Your task to perform on an android device: Open maps Image 0: 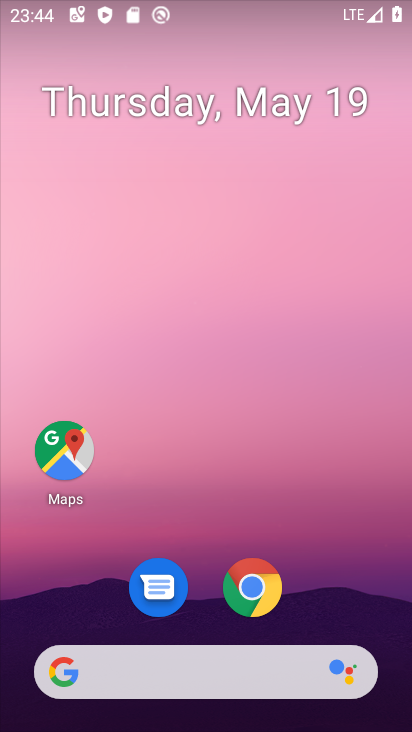
Step 0: drag from (217, 681) to (228, 191)
Your task to perform on an android device: Open maps Image 1: 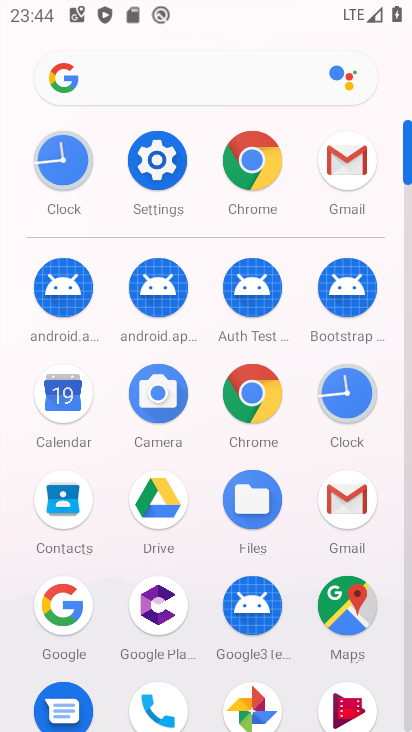
Step 1: click (348, 587)
Your task to perform on an android device: Open maps Image 2: 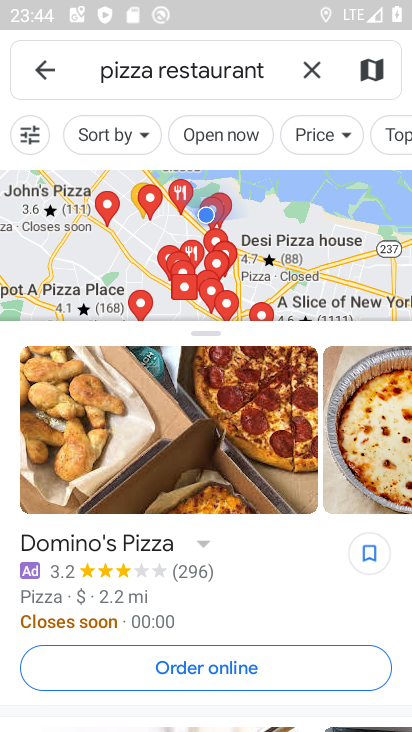
Step 2: click (100, 262)
Your task to perform on an android device: Open maps Image 3: 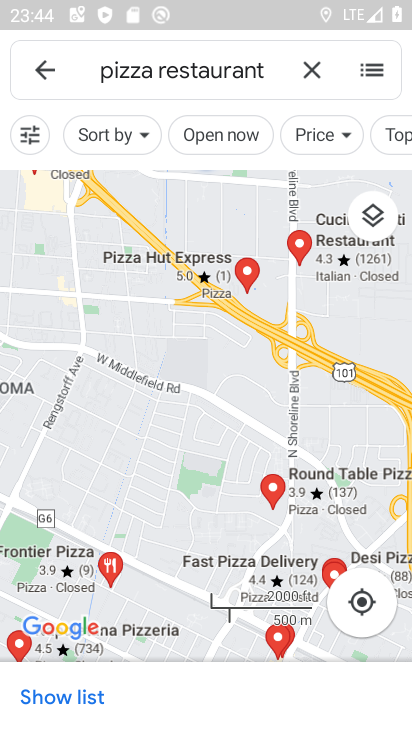
Step 3: task complete